Your task to perform on an android device: open wifi settings Image 0: 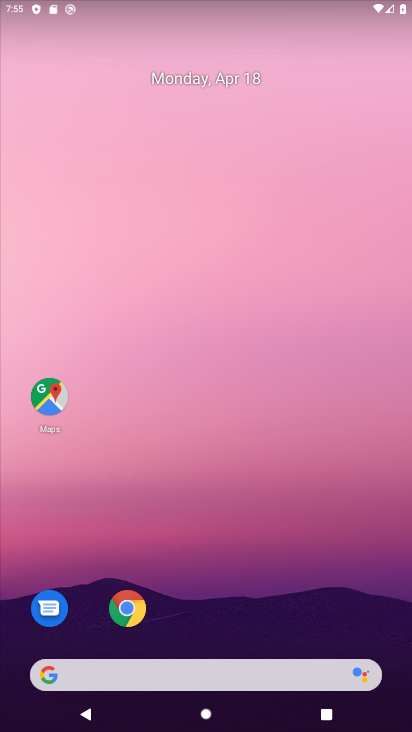
Step 0: drag from (219, 483) to (167, 174)
Your task to perform on an android device: open wifi settings Image 1: 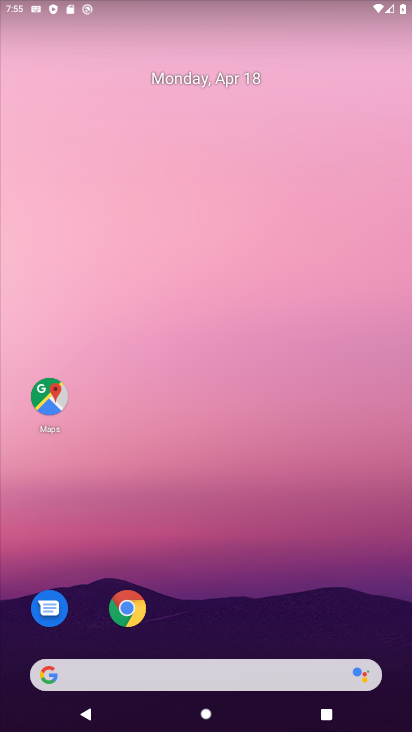
Step 1: drag from (291, 621) to (318, 164)
Your task to perform on an android device: open wifi settings Image 2: 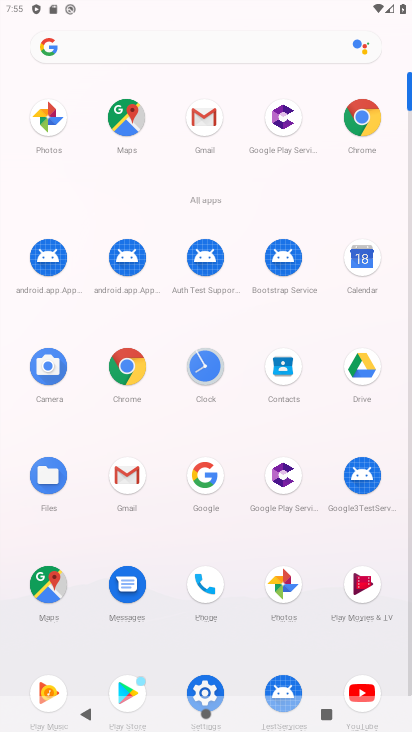
Step 2: click (205, 687)
Your task to perform on an android device: open wifi settings Image 3: 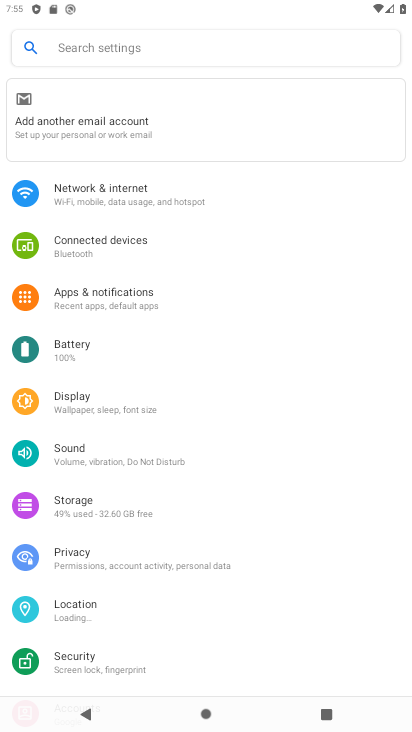
Step 3: click (89, 190)
Your task to perform on an android device: open wifi settings Image 4: 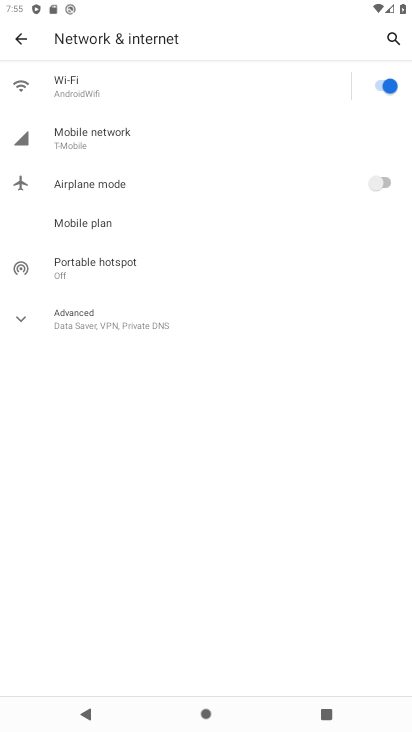
Step 4: click (118, 81)
Your task to perform on an android device: open wifi settings Image 5: 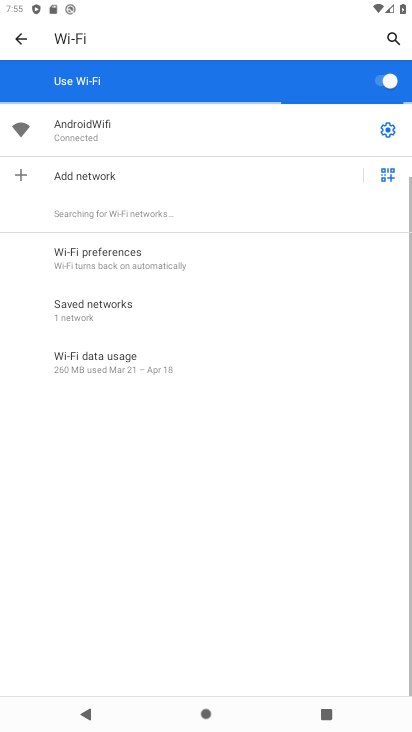
Step 5: click (388, 129)
Your task to perform on an android device: open wifi settings Image 6: 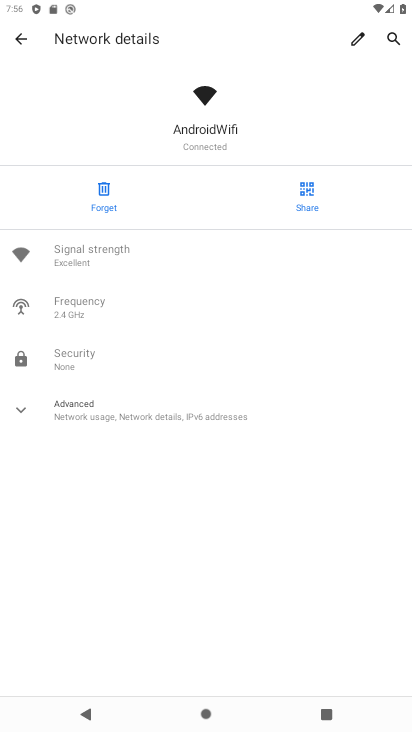
Step 6: task complete